Your task to perform on an android device: Go to Reddit.com Image 0: 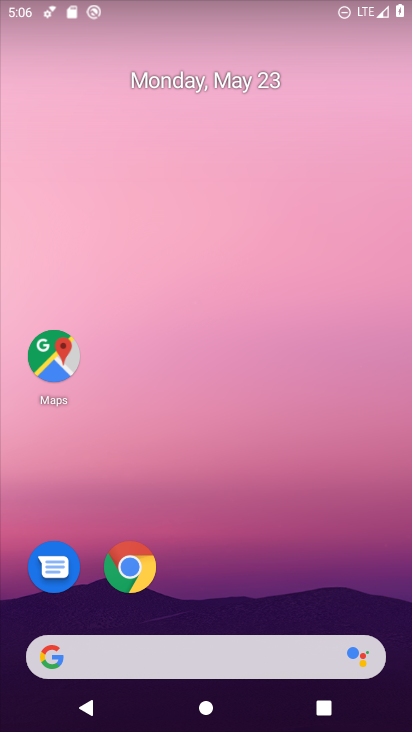
Step 0: click (128, 568)
Your task to perform on an android device: Go to Reddit.com Image 1: 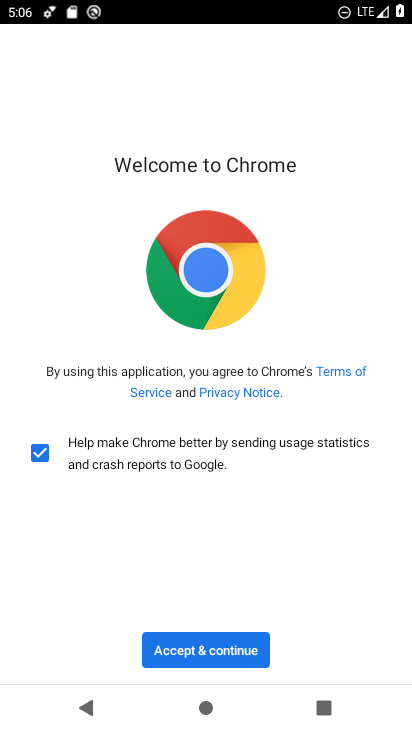
Step 1: click (178, 644)
Your task to perform on an android device: Go to Reddit.com Image 2: 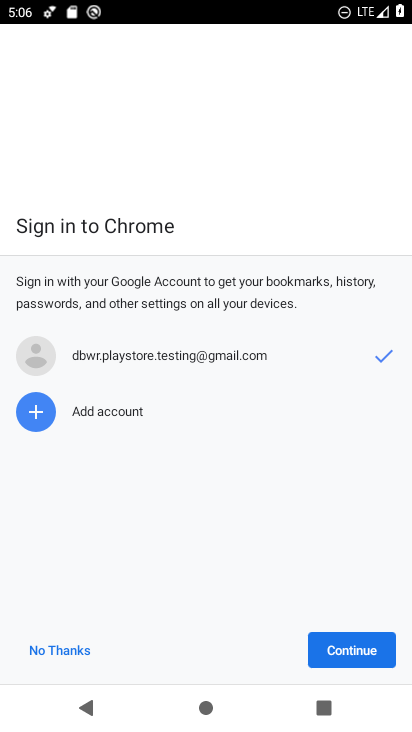
Step 2: click (350, 652)
Your task to perform on an android device: Go to Reddit.com Image 3: 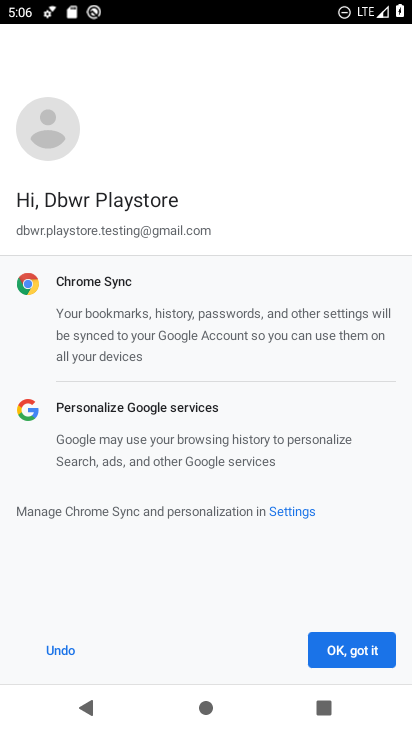
Step 3: click (350, 652)
Your task to perform on an android device: Go to Reddit.com Image 4: 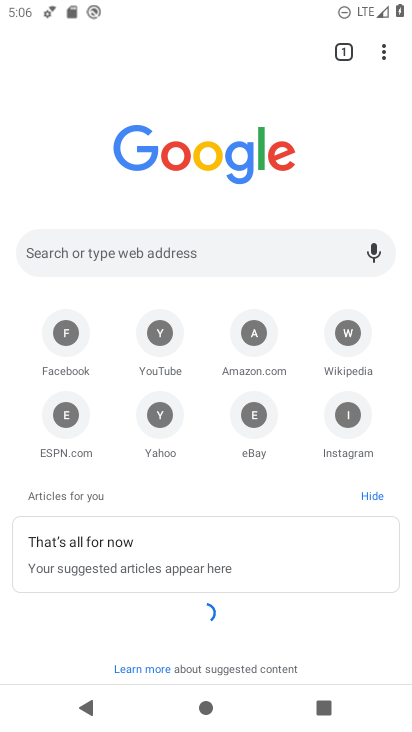
Step 4: click (164, 256)
Your task to perform on an android device: Go to Reddit.com Image 5: 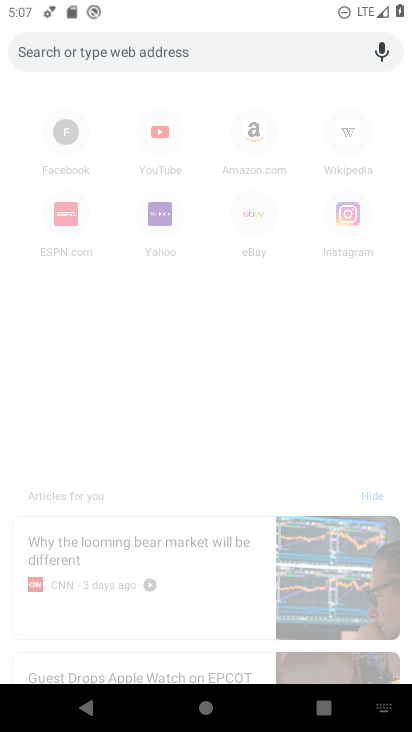
Step 5: type "Reddit.com"
Your task to perform on an android device: Go to Reddit.com Image 6: 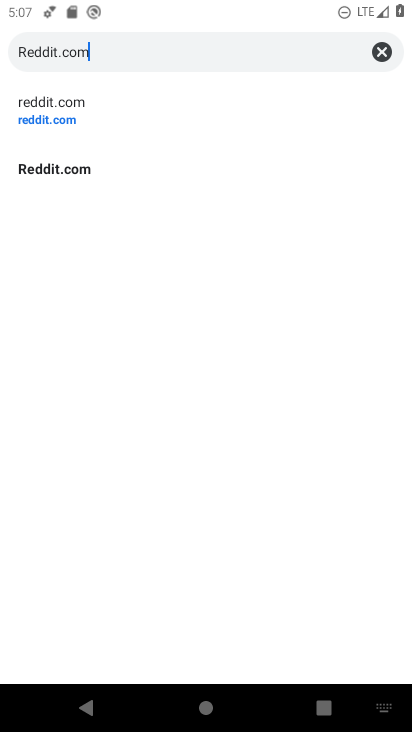
Step 6: type ""
Your task to perform on an android device: Go to Reddit.com Image 7: 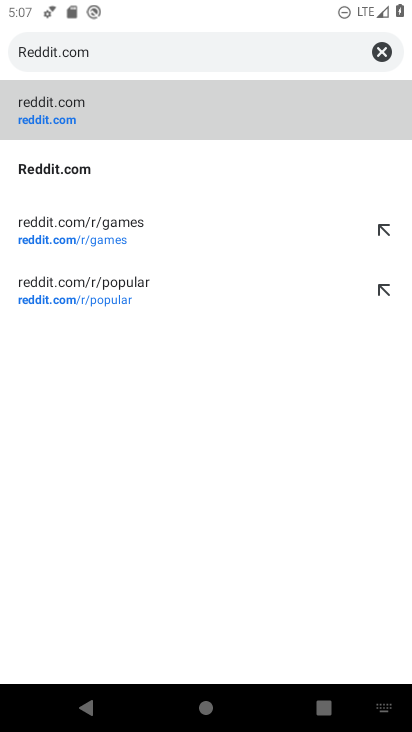
Step 7: click (77, 164)
Your task to perform on an android device: Go to Reddit.com Image 8: 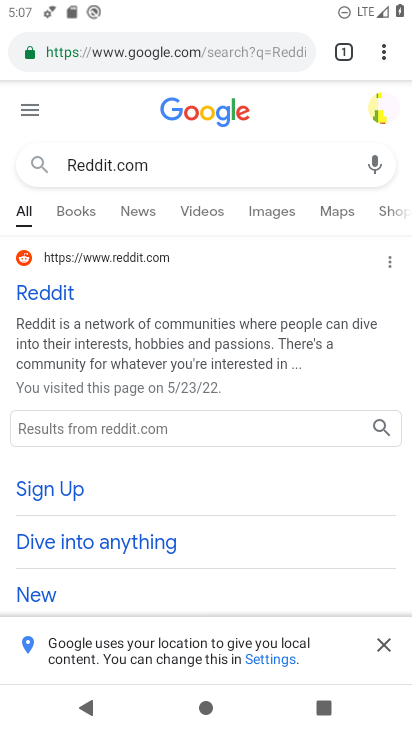
Step 8: click (33, 293)
Your task to perform on an android device: Go to Reddit.com Image 9: 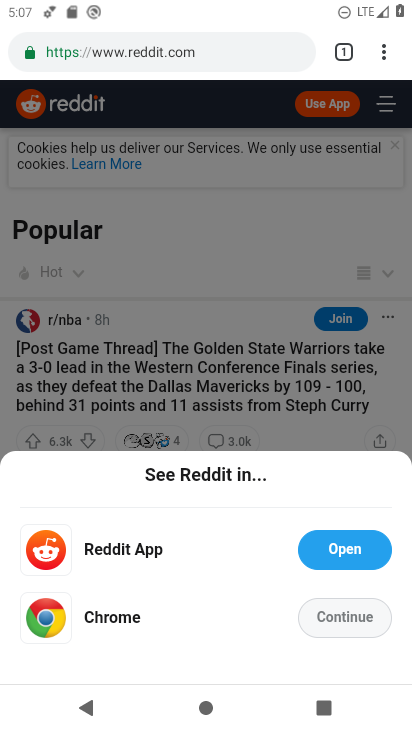
Step 9: click (351, 622)
Your task to perform on an android device: Go to Reddit.com Image 10: 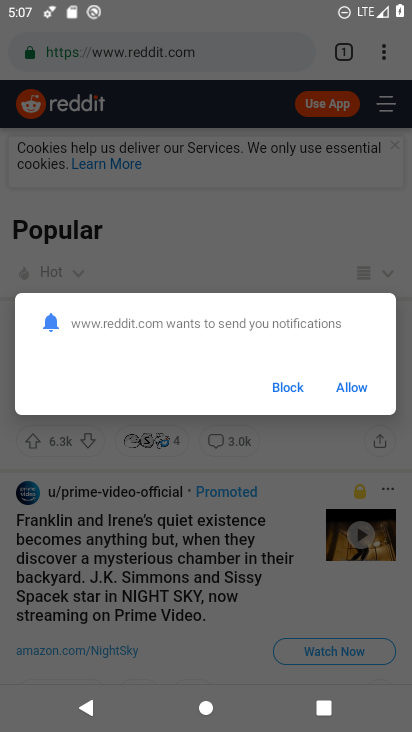
Step 10: click (358, 392)
Your task to perform on an android device: Go to Reddit.com Image 11: 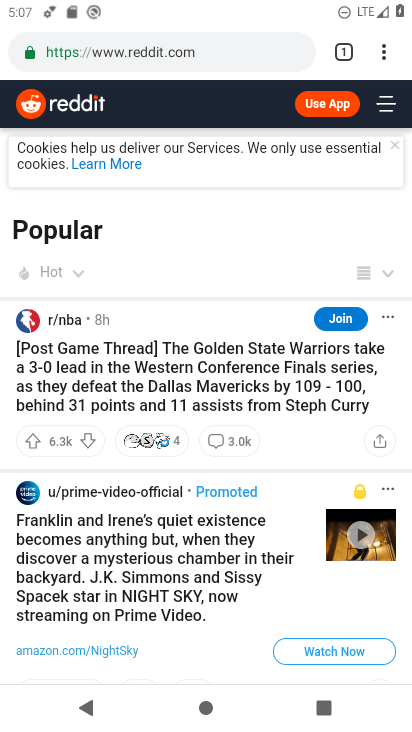
Step 11: task complete